Your task to perform on an android device: Open Google Image 0: 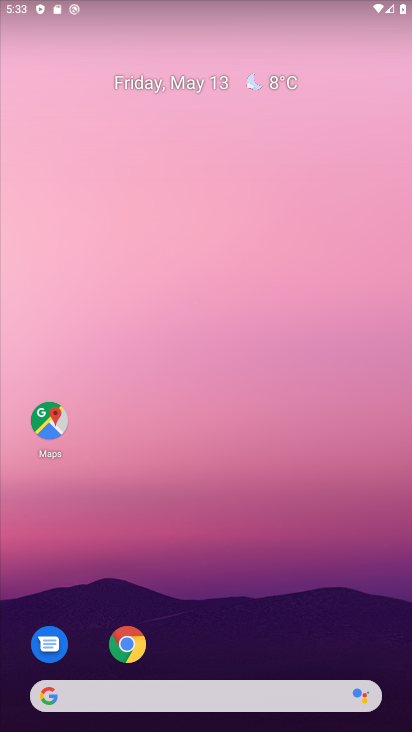
Step 0: click (200, 698)
Your task to perform on an android device: Open Google Image 1: 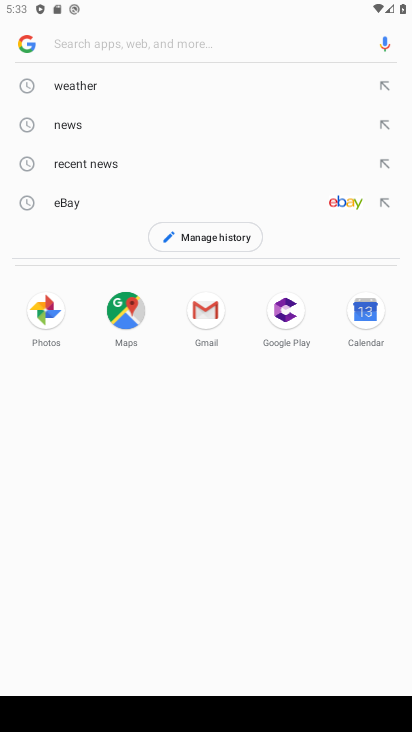
Step 1: task complete